Your task to perform on an android device: Go to Yahoo.com Image 0: 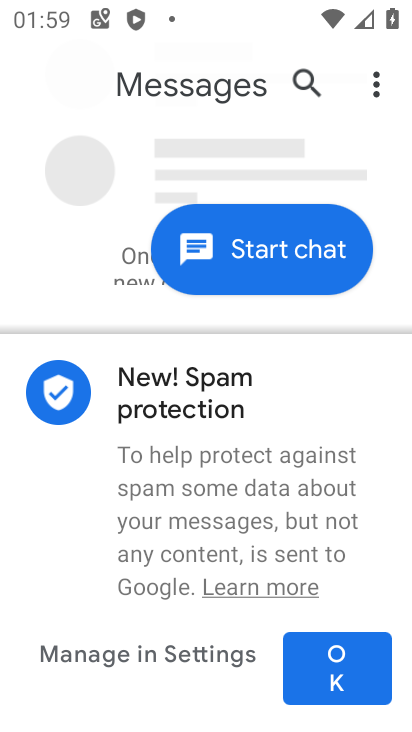
Step 0: press home button
Your task to perform on an android device: Go to Yahoo.com Image 1: 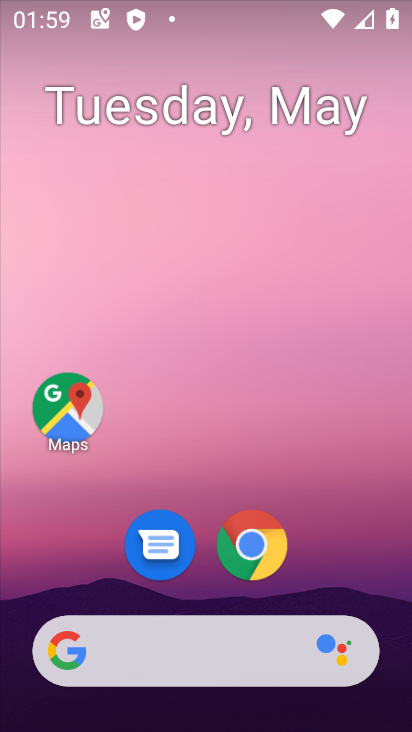
Step 1: click (250, 547)
Your task to perform on an android device: Go to Yahoo.com Image 2: 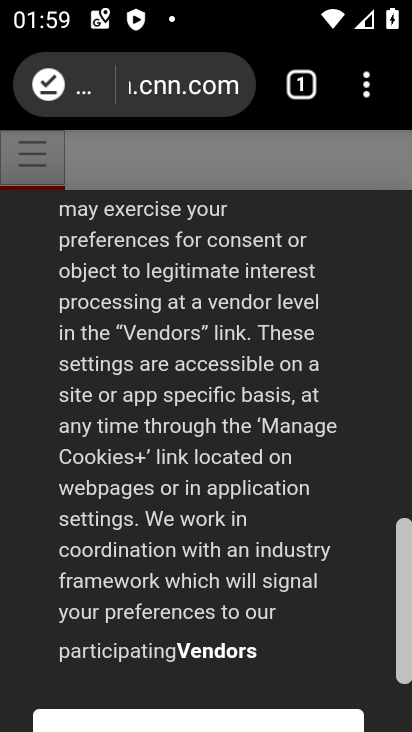
Step 2: click (144, 76)
Your task to perform on an android device: Go to Yahoo.com Image 3: 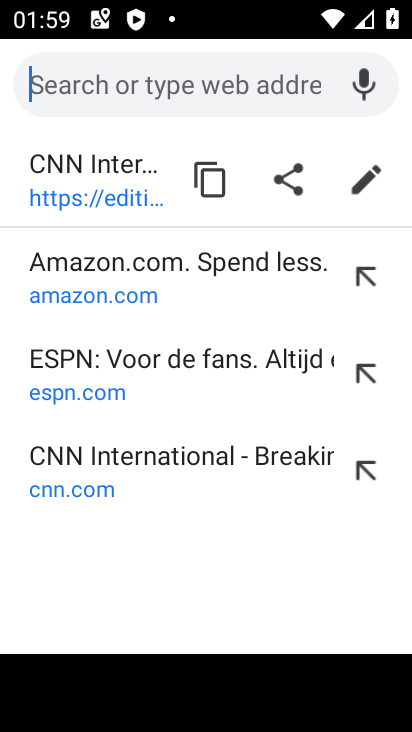
Step 3: type "yahoo.com"
Your task to perform on an android device: Go to Yahoo.com Image 4: 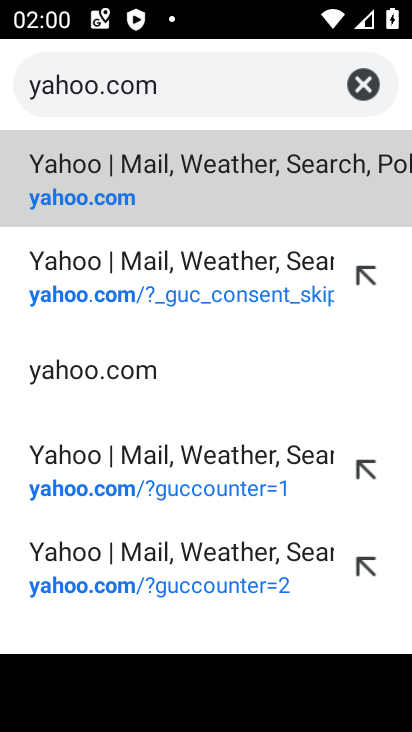
Step 4: click (106, 176)
Your task to perform on an android device: Go to Yahoo.com Image 5: 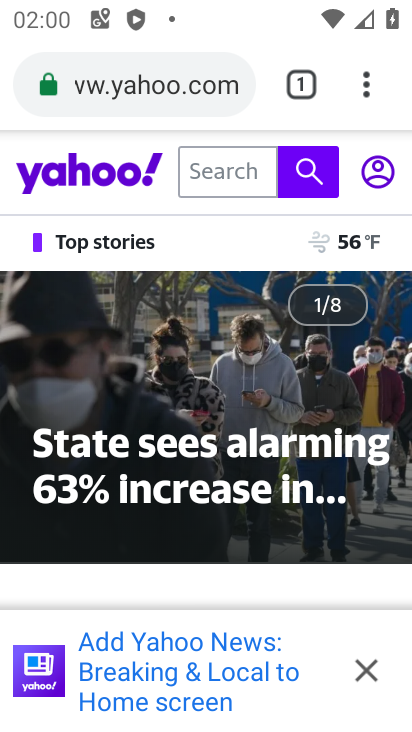
Step 5: click (363, 669)
Your task to perform on an android device: Go to Yahoo.com Image 6: 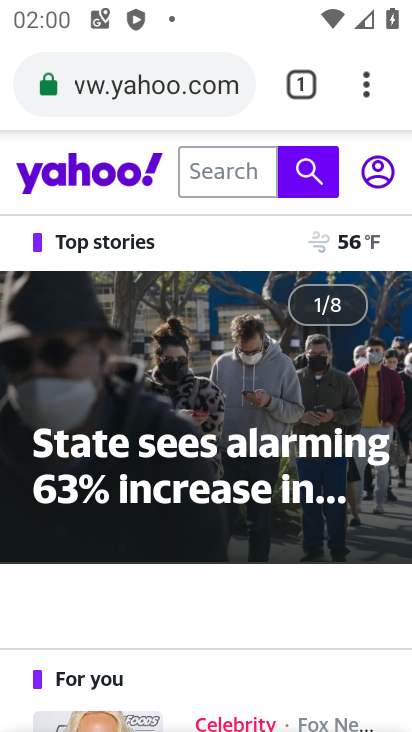
Step 6: task complete